Your task to perform on an android device: set default search engine in the chrome app Image 0: 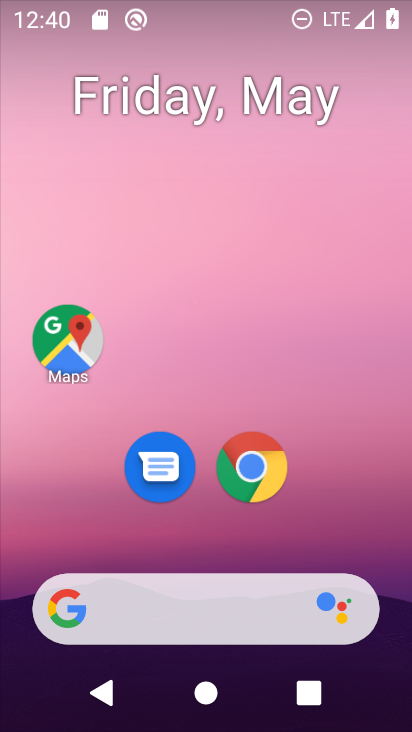
Step 0: drag from (323, 633) to (307, 6)
Your task to perform on an android device: set default search engine in the chrome app Image 1: 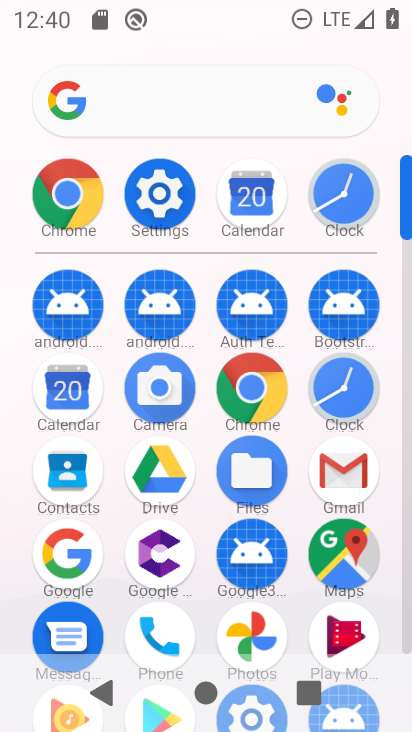
Step 1: click (273, 393)
Your task to perform on an android device: set default search engine in the chrome app Image 2: 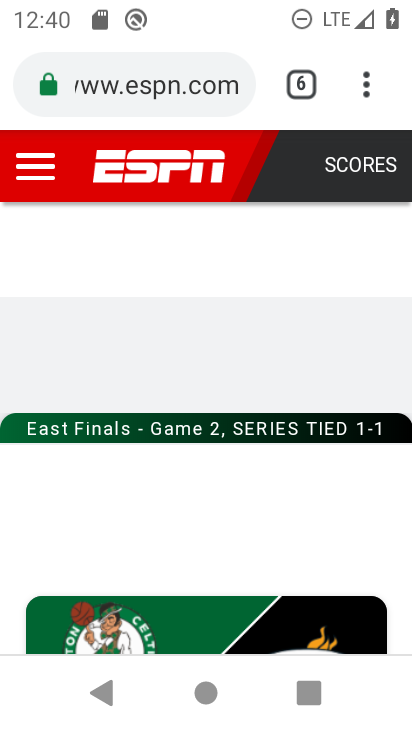
Step 2: drag from (369, 90) to (365, 237)
Your task to perform on an android device: set default search engine in the chrome app Image 3: 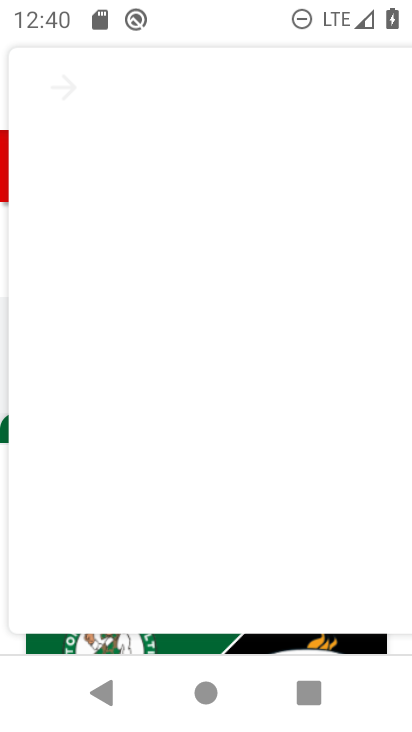
Step 3: drag from (369, 367) to (305, 568)
Your task to perform on an android device: set default search engine in the chrome app Image 4: 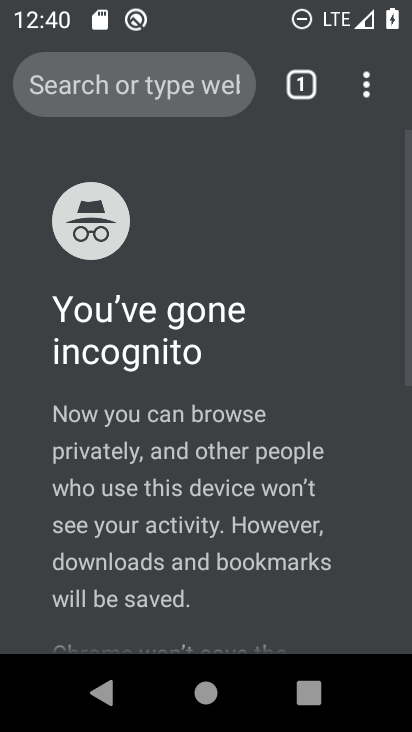
Step 4: drag from (366, 85) to (196, 525)
Your task to perform on an android device: set default search engine in the chrome app Image 5: 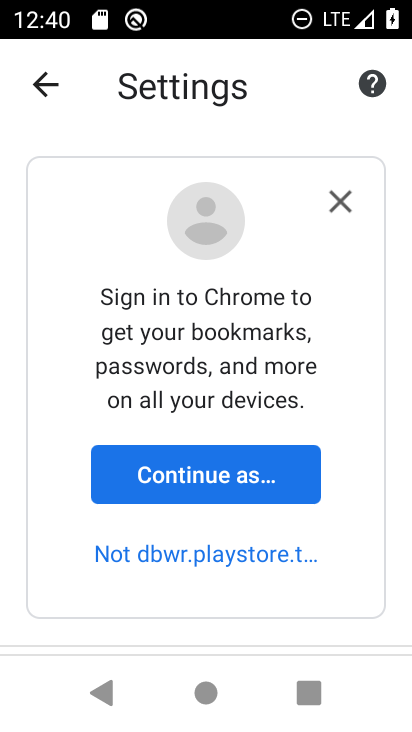
Step 5: drag from (351, 620) to (400, 85)
Your task to perform on an android device: set default search engine in the chrome app Image 6: 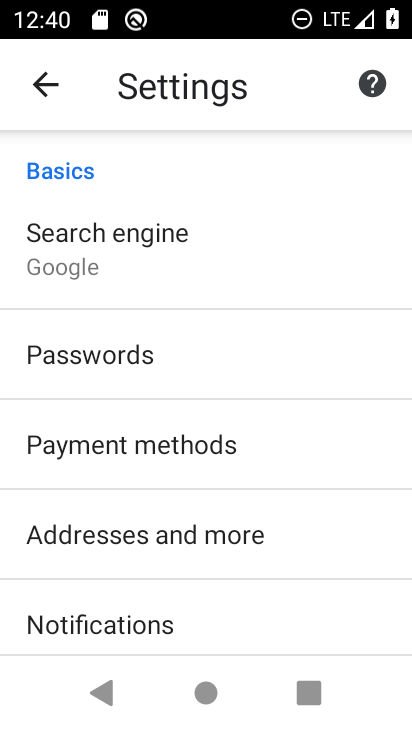
Step 6: click (327, 603)
Your task to perform on an android device: set default search engine in the chrome app Image 7: 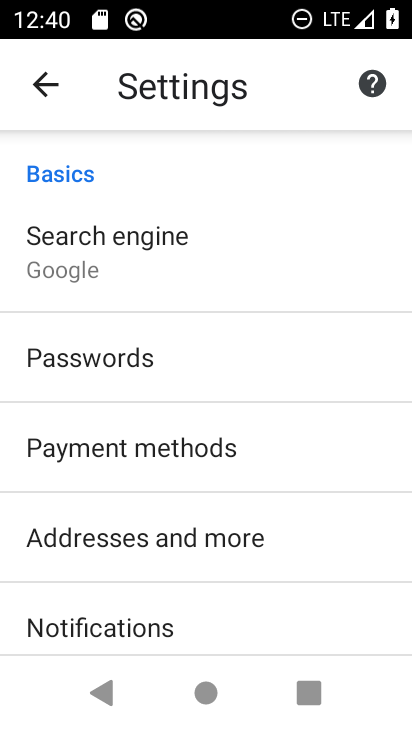
Step 7: click (298, 293)
Your task to perform on an android device: set default search engine in the chrome app Image 8: 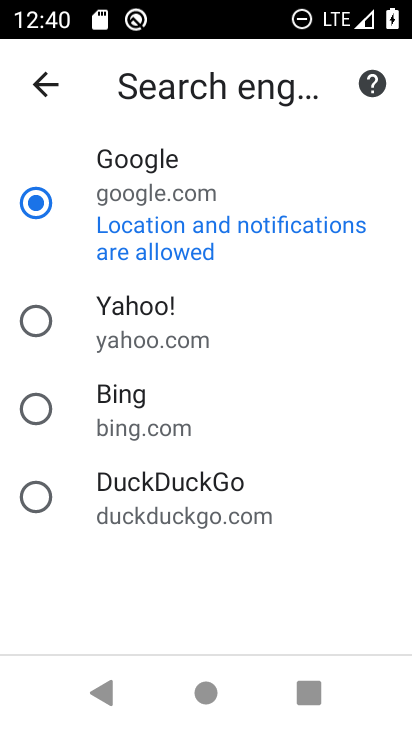
Step 8: task complete